Your task to perform on an android device: open app "Yahoo Mail" (install if not already installed), go to login, and select forgot password Image 0: 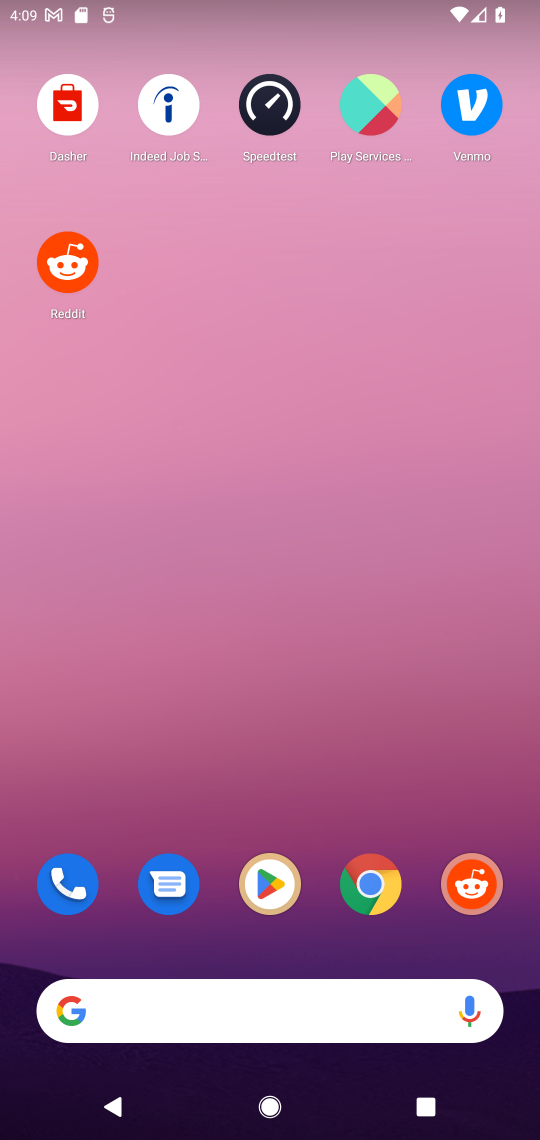
Step 0: click (270, 893)
Your task to perform on an android device: open app "Yahoo Mail" (install if not already installed), go to login, and select forgot password Image 1: 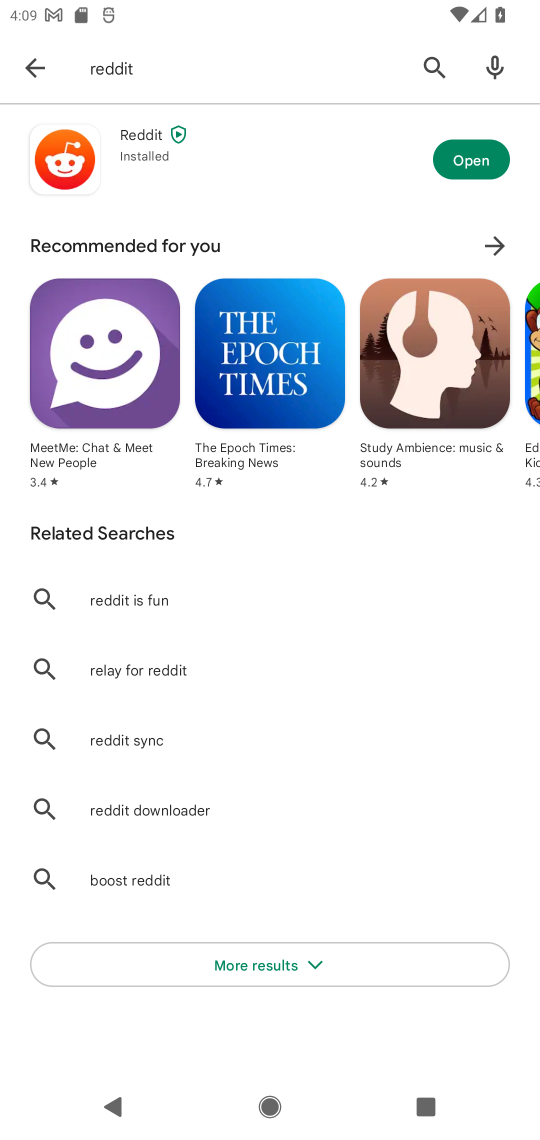
Step 1: click (188, 74)
Your task to perform on an android device: open app "Yahoo Mail" (install if not already installed), go to login, and select forgot password Image 2: 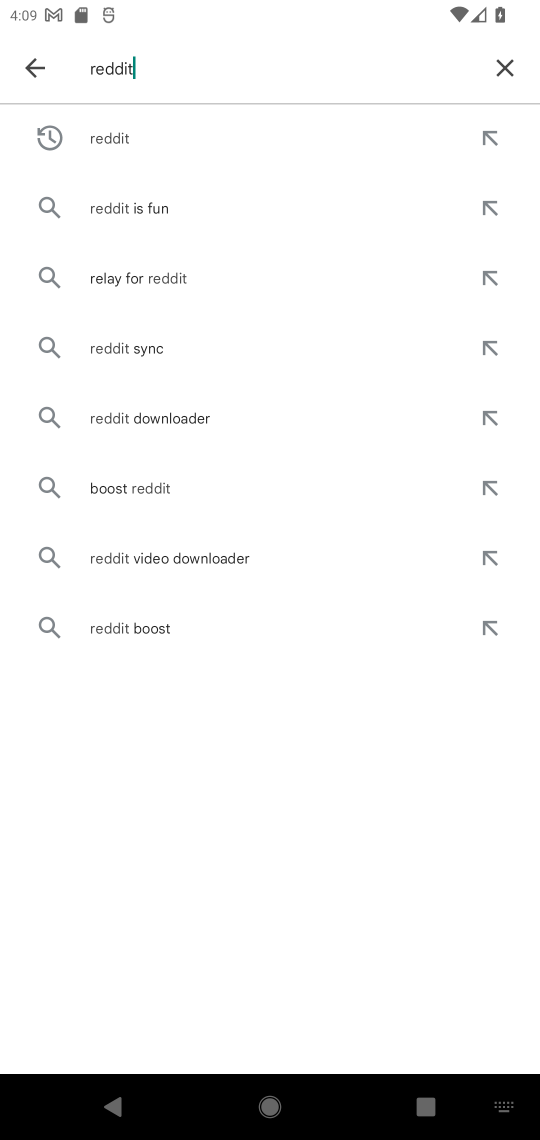
Step 2: click (503, 69)
Your task to perform on an android device: open app "Yahoo Mail" (install if not already installed), go to login, and select forgot password Image 3: 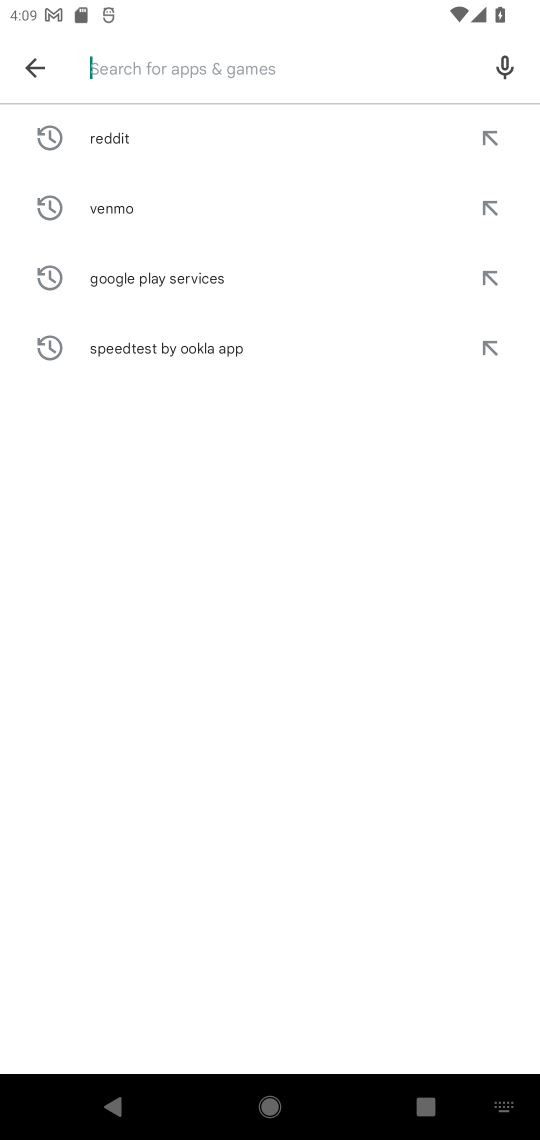
Step 3: type "Yahoo Mail"
Your task to perform on an android device: open app "Yahoo Mail" (install if not already installed), go to login, and select forgot password Image 4: 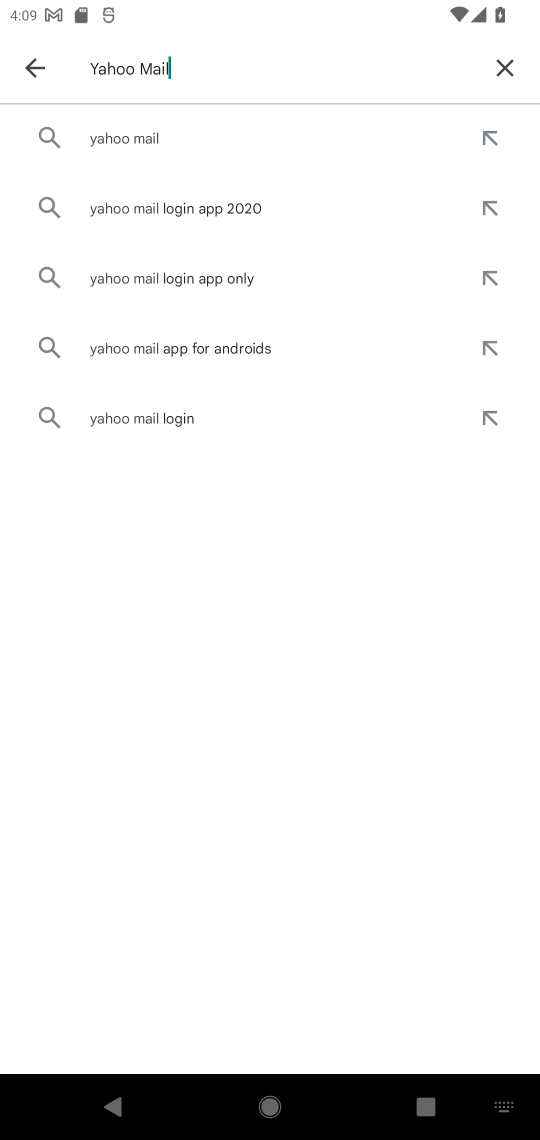
Step 4: click (151, 151)
Your task to perform on an android device: open app "Yahoo Mail" (install if not already installed), go to login, and select forgot password Image 5: 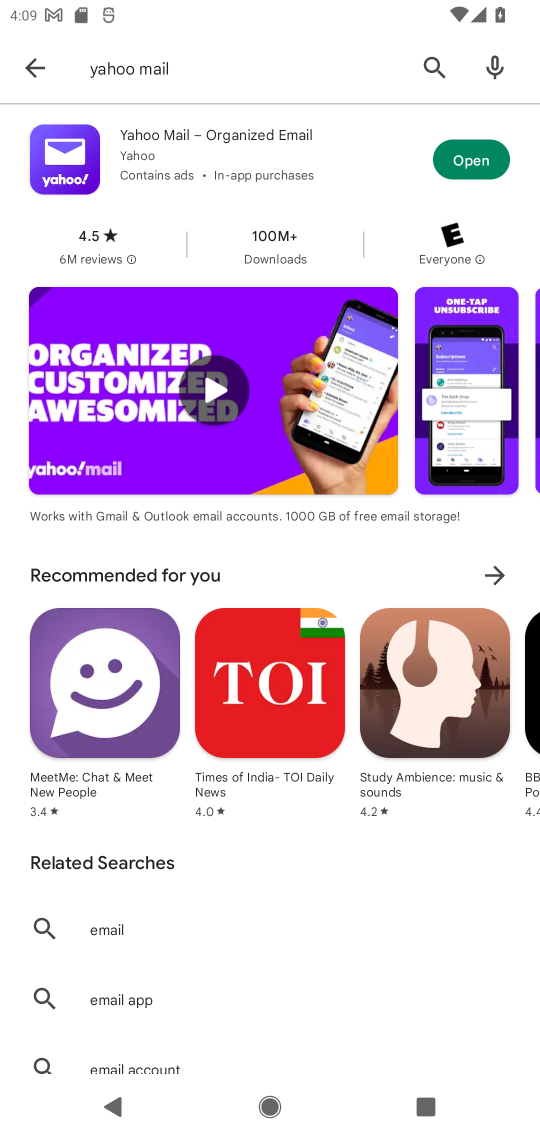
Step 5: click (488, 167)
Your task to perform on an android device: open app "Yahoo Mail" (install if not already installed), go to login, and select forgot password Image 6: 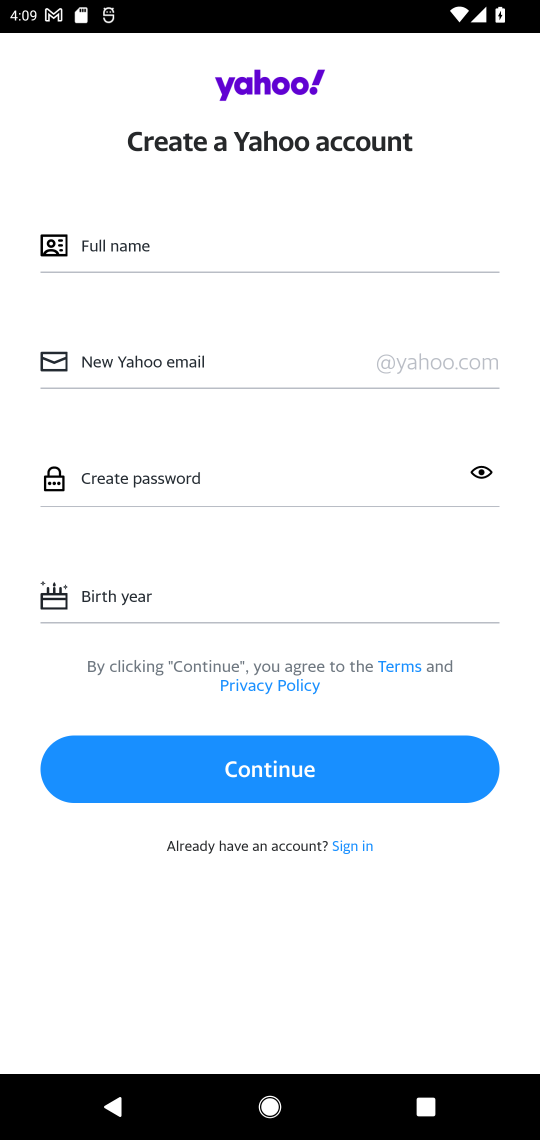
Step 6: click (359, 846)
Your task to perform on an android device: open app "Yahoo Mail" (install if not already installed), go to login, and select forgot password Image 7: 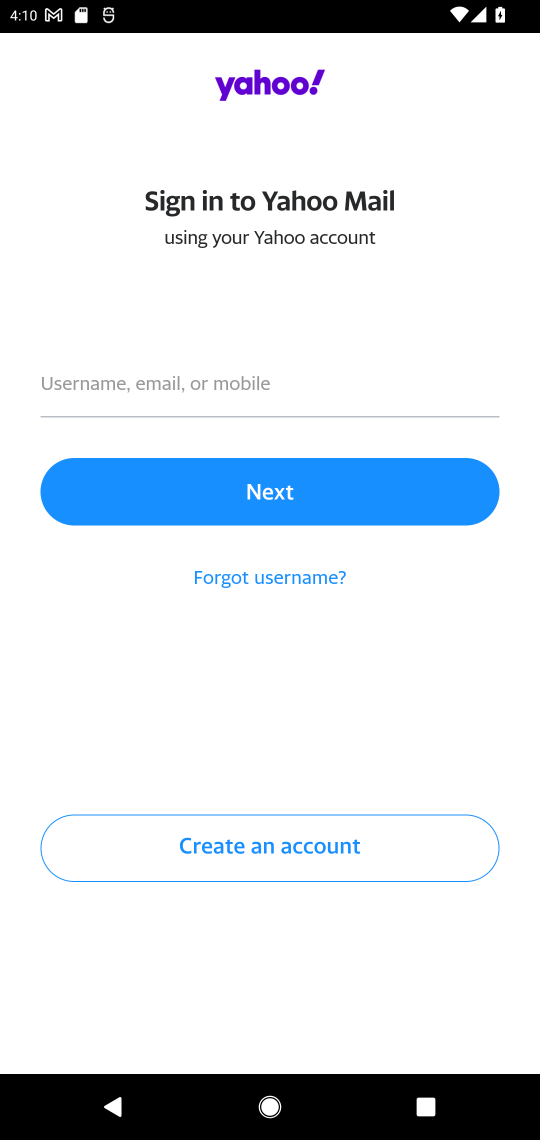
Step 7: click (262, 394)
Your task to perform on an android device: open app "Yahoo Mail" (install if not already installed), go to login, and select forgot password Image 8: 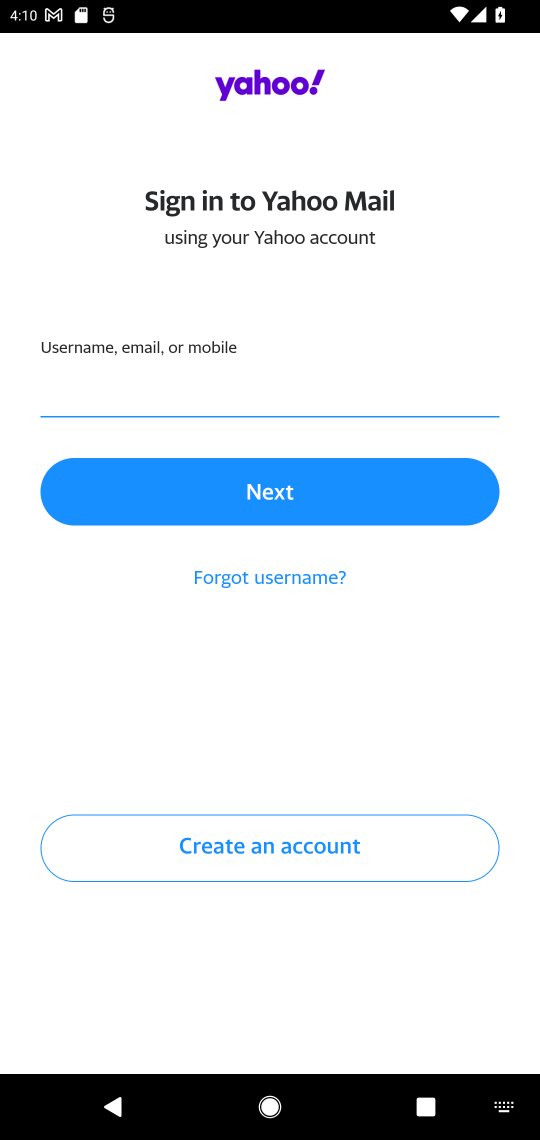
Step 8: type "dcsdxcv cvcxf@yahoo.com"
Your task to perform on an android device: open app "Yahoo Mail" (install if not already installed), go to login, and select forgot password Image 9: 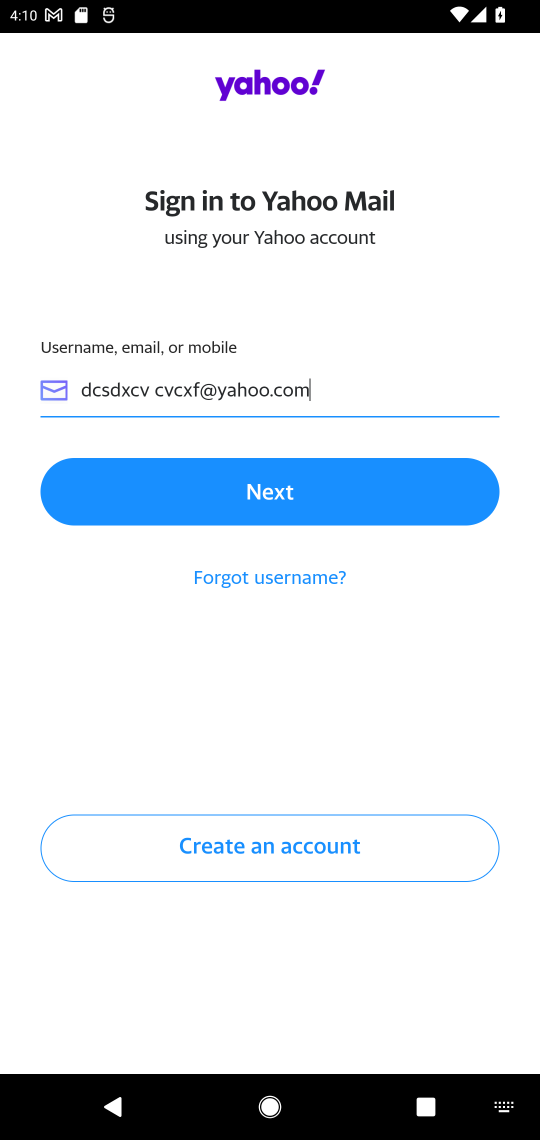
Step 9: click (290, 534)
Your task to perform on an android device: open app "Yahoo Mail" (install if not already installed), go to login, and select forgot password Image 10: 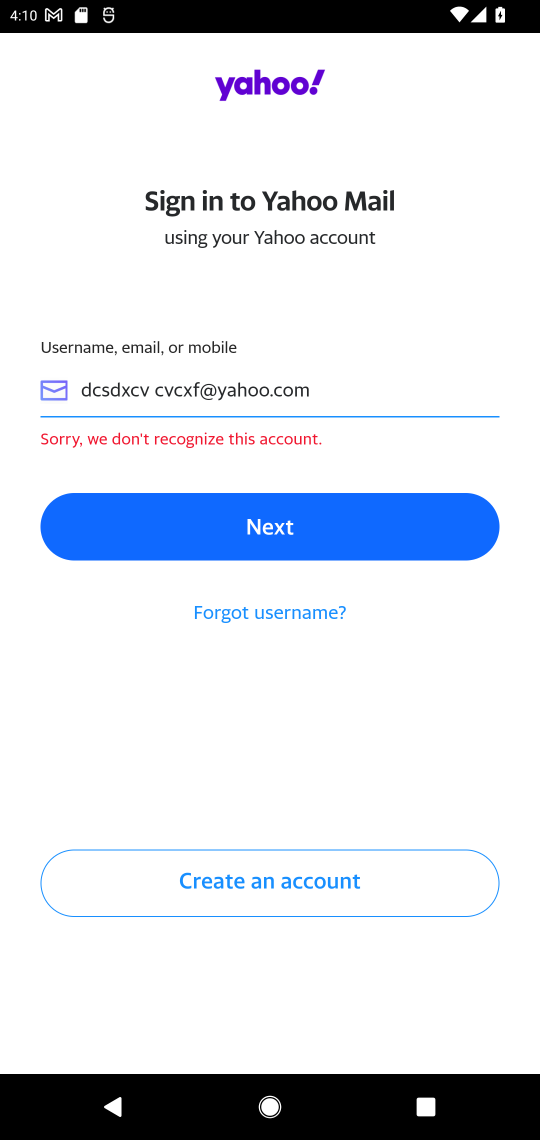
Step 10: click (295, 609)
Your task to perform on an android device: open app "Yahoo Mail" (install if not already installed), go to login, and select forgot password Image 11: 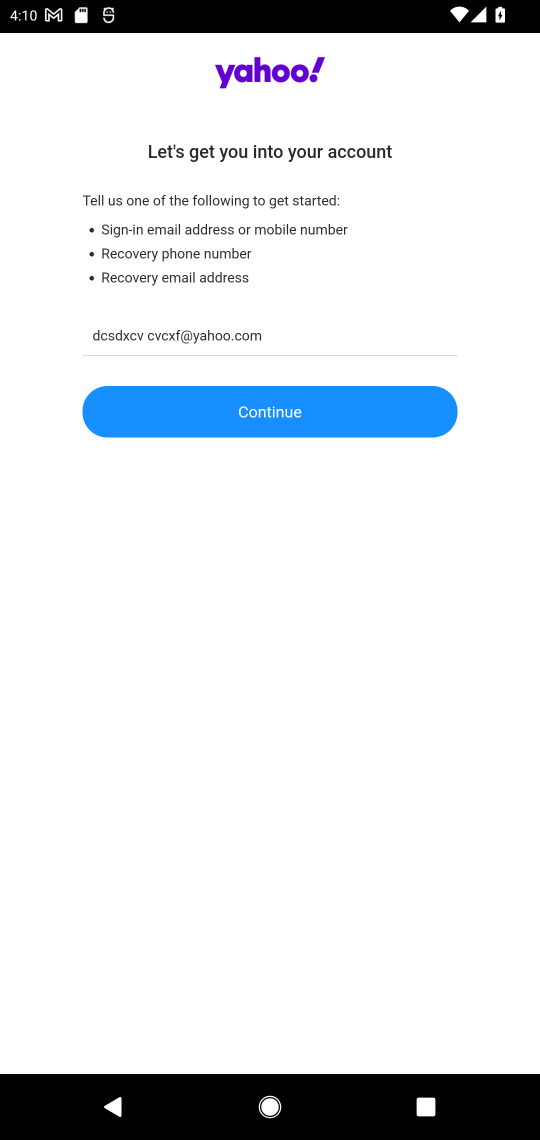
Step 11: task complete